Your task to perform on an android device: open app "Messages" (install if not already installed), go to login, and select forgot password Image 0: 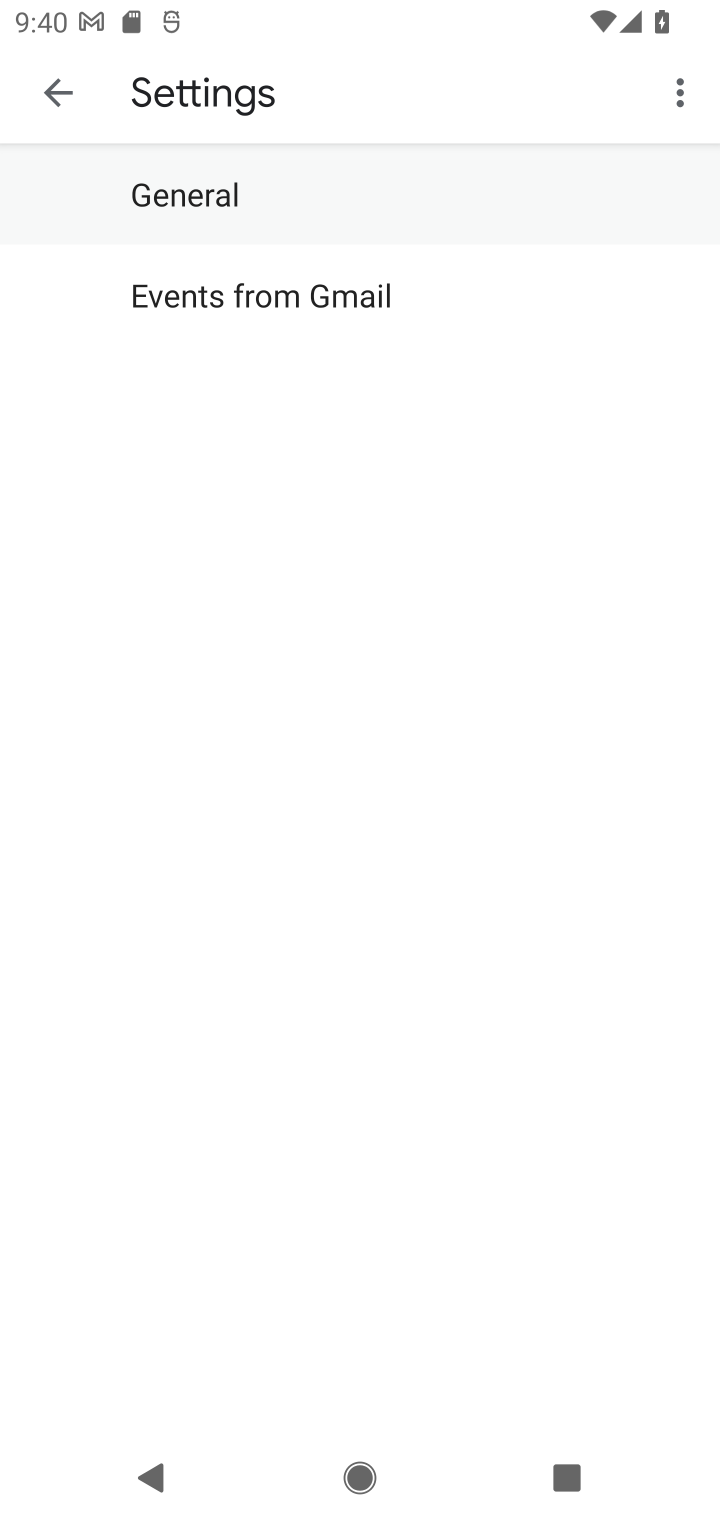
Step 0: press home button
Your task to perform on an android device: open app "Messages" (install if not already installed), go to login, and select forgot password Image 1: 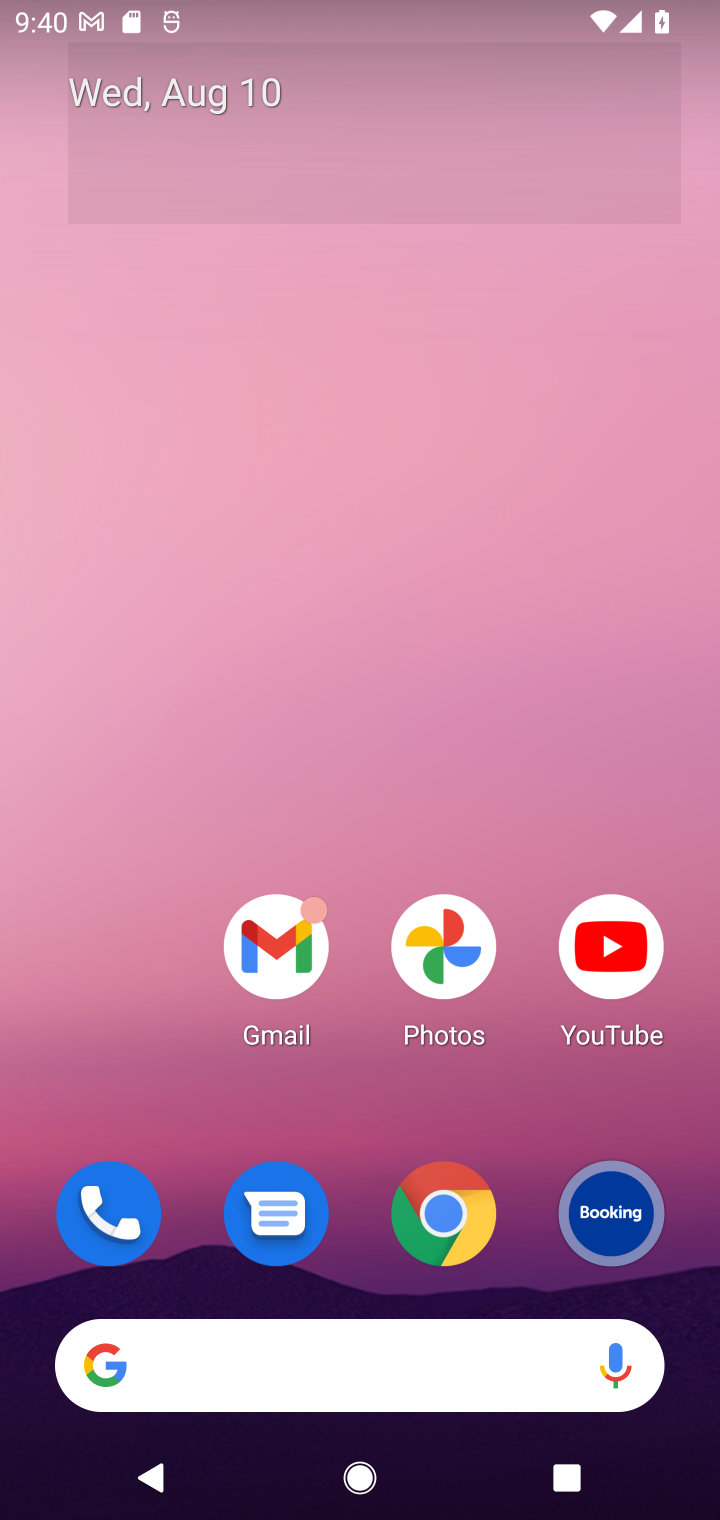
Step 1: drag from (179, 758) to (223, 126)
Your task to perform on an android device: open app "Messages" (install if not already installed), go to login, and select forgot password Image 2: 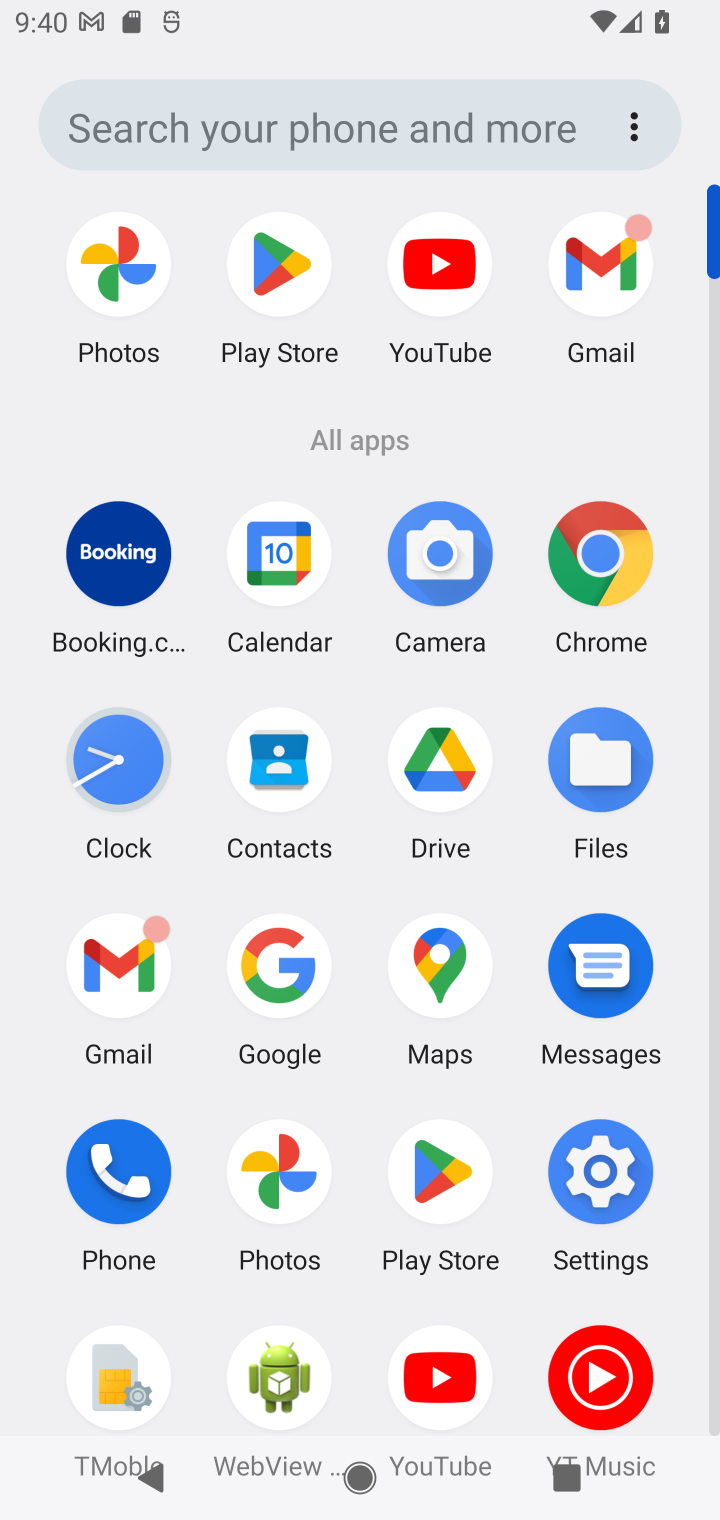
Step 2: click (279, 256)
Your task to perform on an android device: open app "Messages" (install if not already installed), go to login, and select forgot password Image 3: 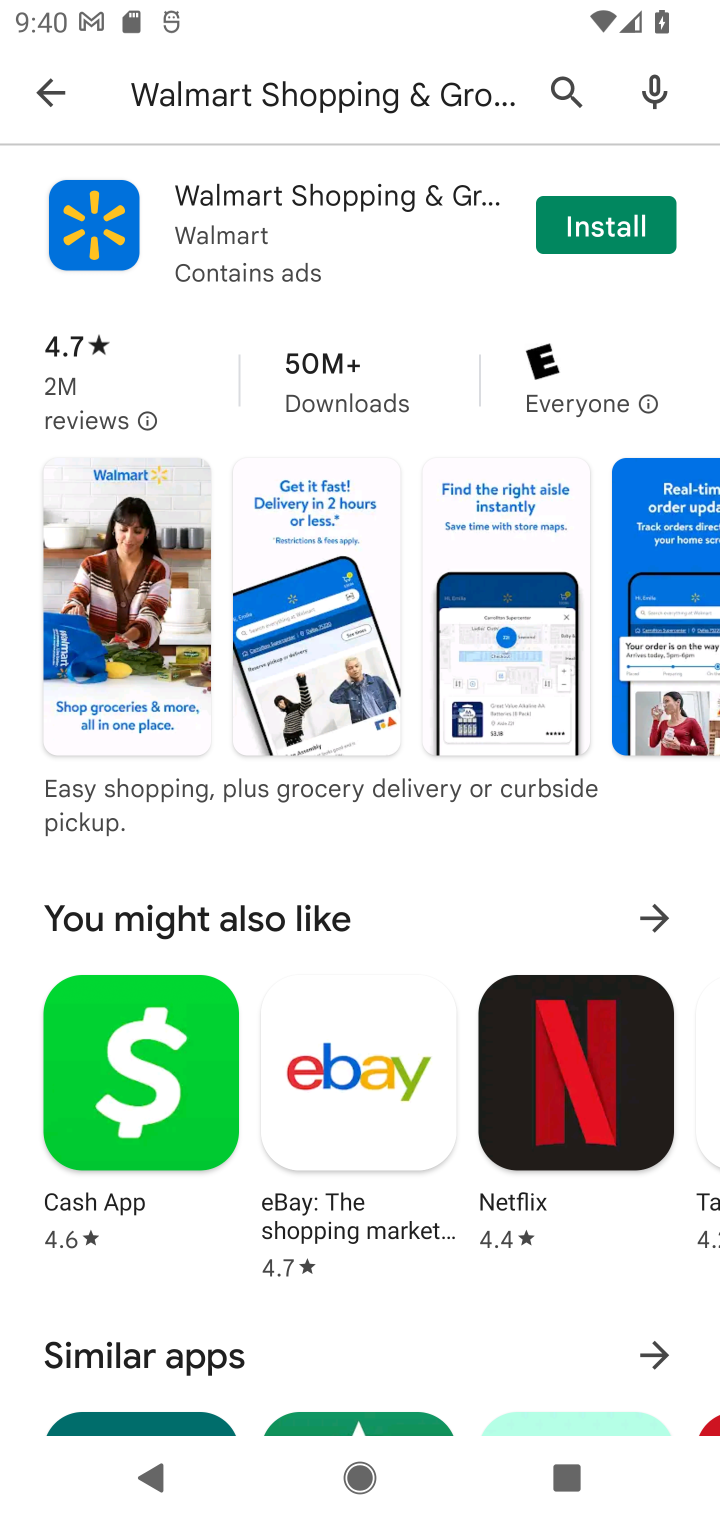
Step 3: click (267, 268)
Your task to perform on an android device: open app "Messages" (install if not already installed), go to login, and select forgot password Image 4: 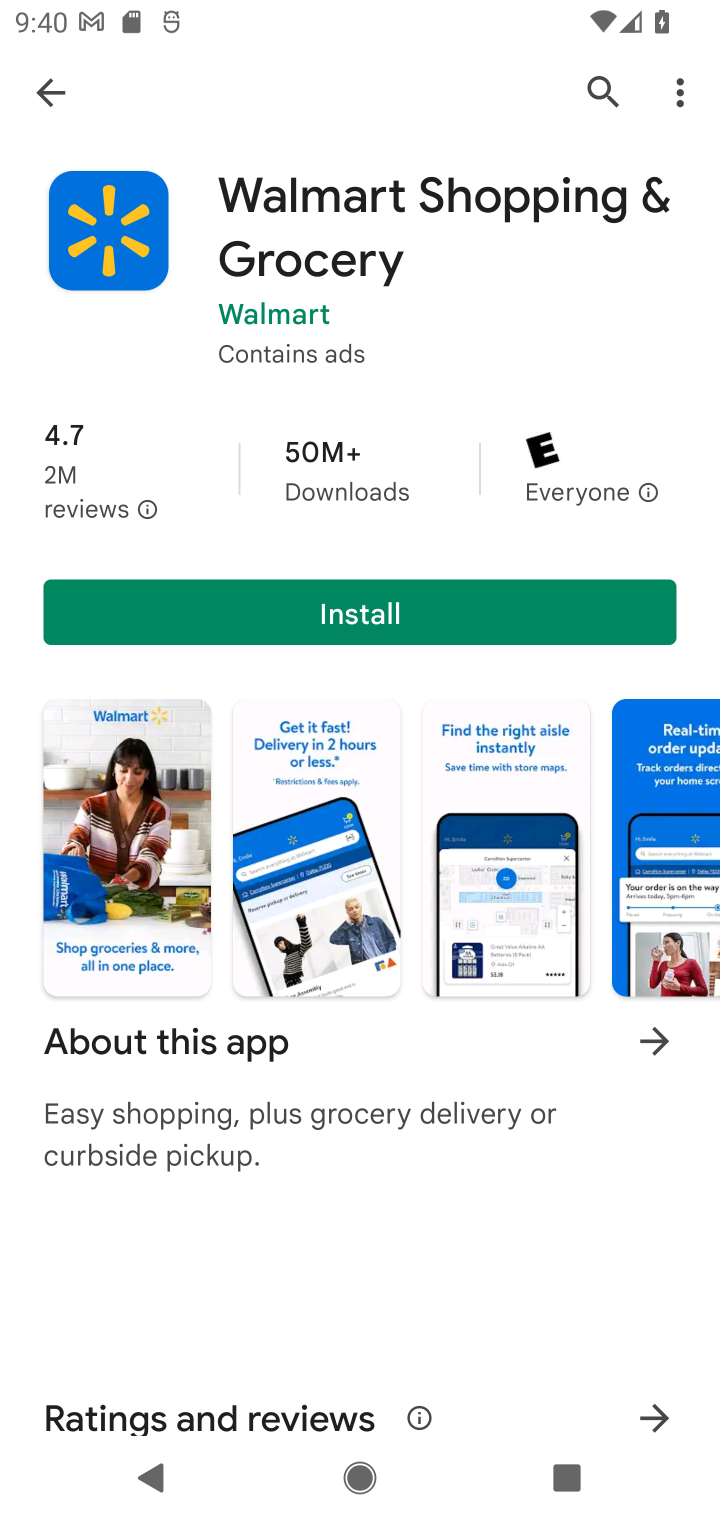
Step 4: click (570, 80)
Your task to perform on an android device: open app "Messages" (install if not already installed), go to login, and select forgot password Image 5: 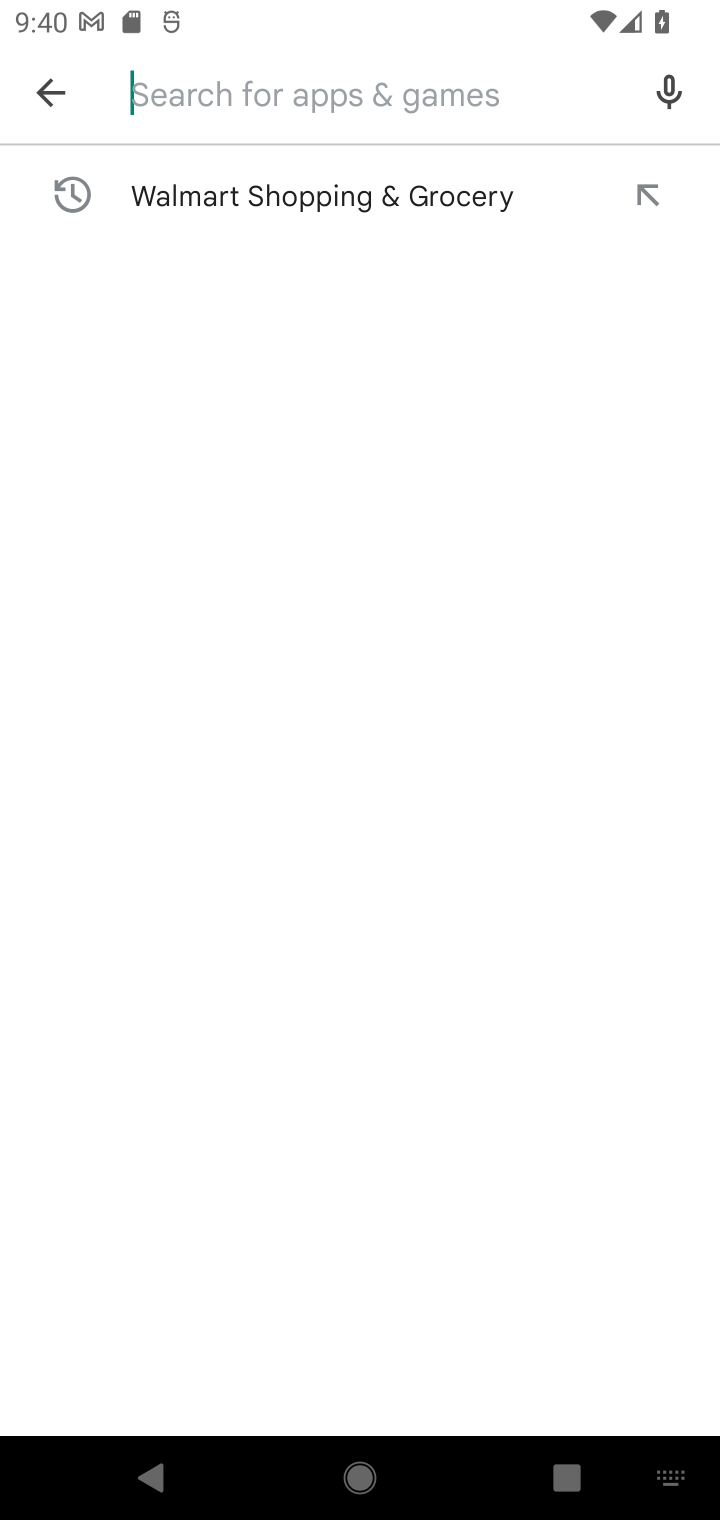
Step 5: type "message"
Your task to perform on an android device: open app "Messages" (install if not already installed), go to login, and select forgot password Image 6: 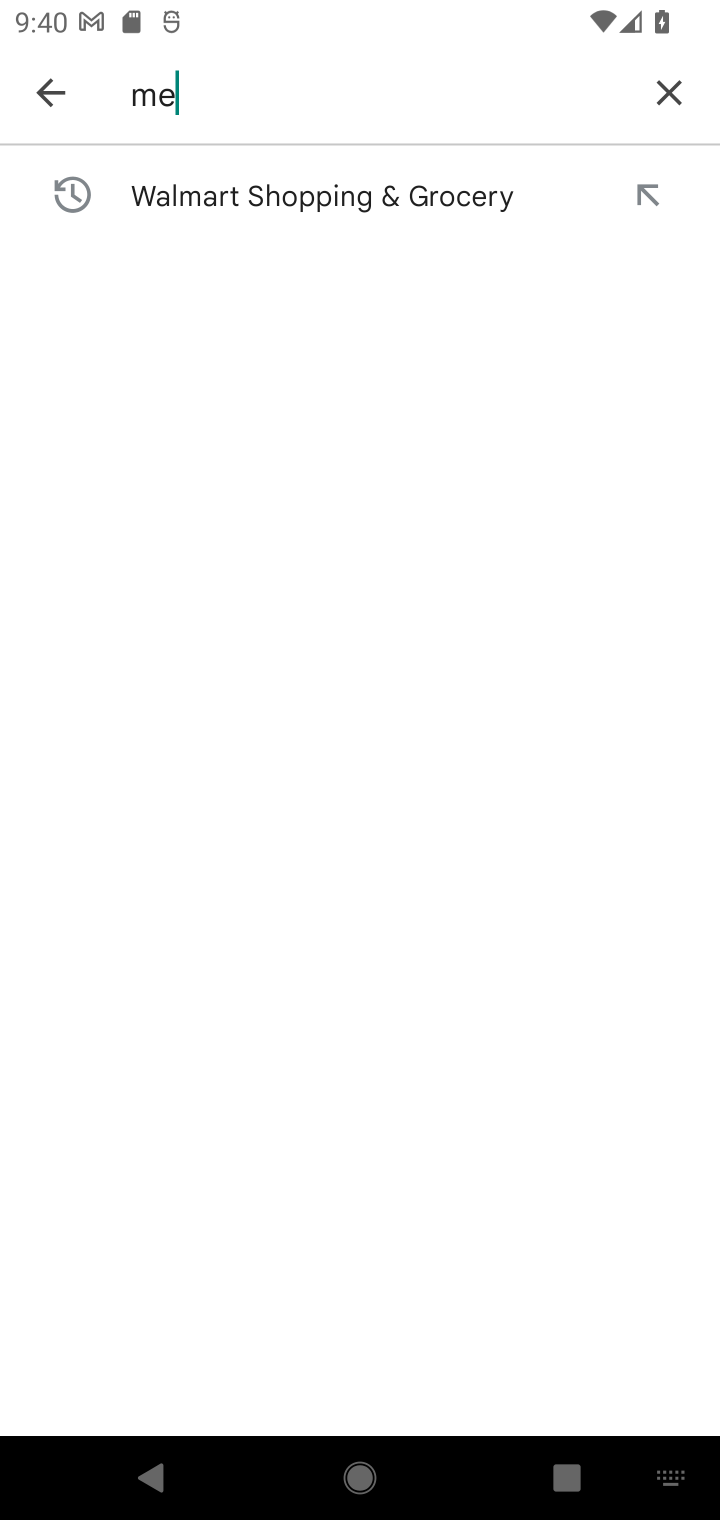
Step 6: press enter
Your task to perform on an android device: open app "Messages" (install if not already installed), go to login, and select forgot password Image 7: 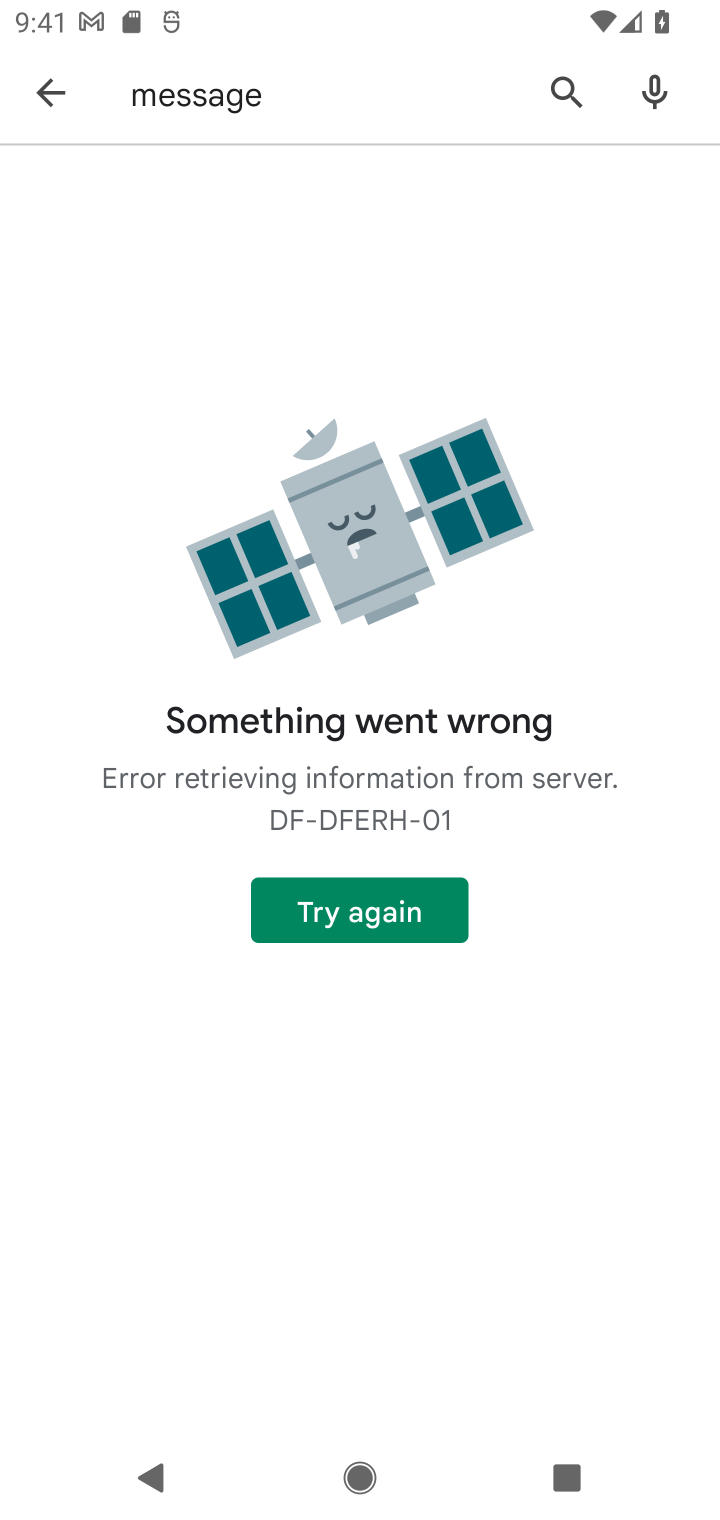
Step 7: task complete